Your task to perform on an android device: Go to display settings Image 0: 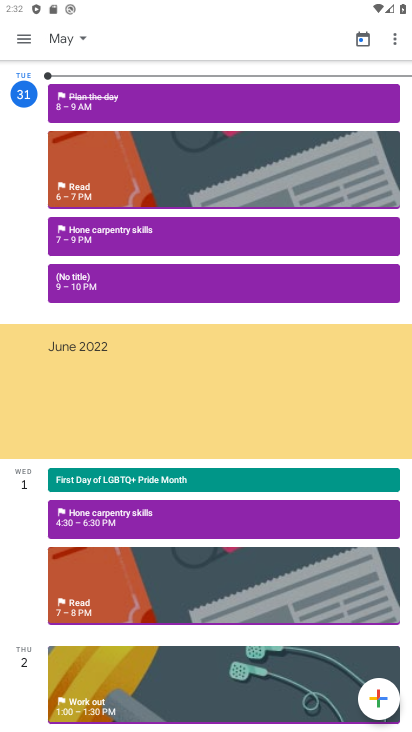
Step 0: press home button
Your task to perform on an android device: Go to display settings Image 1: 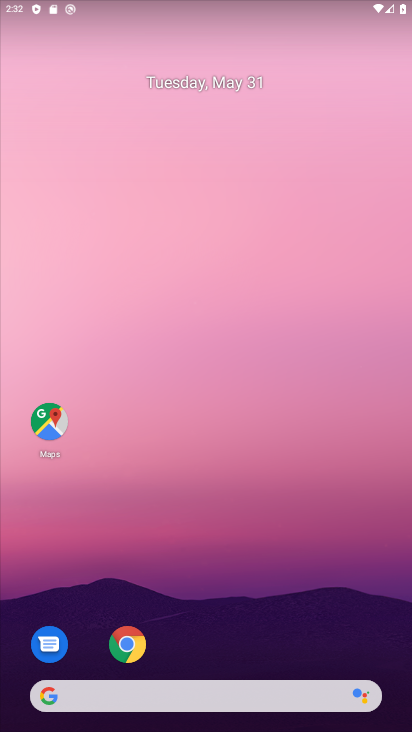
Step 1: drag from (293, 543) to (245, 106)
Your task to perform on an android device: Go to display settings Image 2: 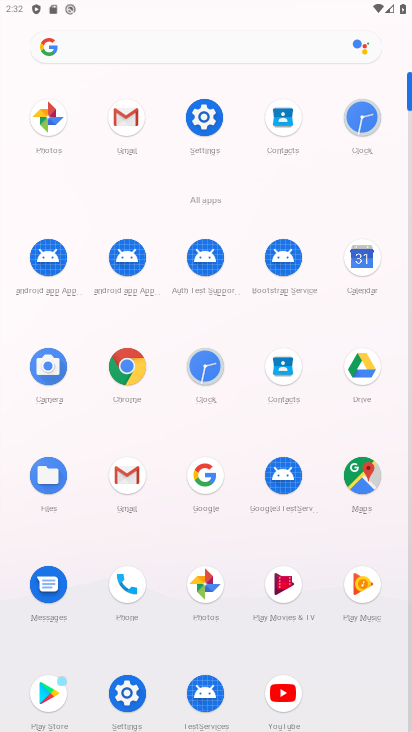
Step 2: click (211, 109)
Your task to perform on an android device: Go to display settings Image 3: 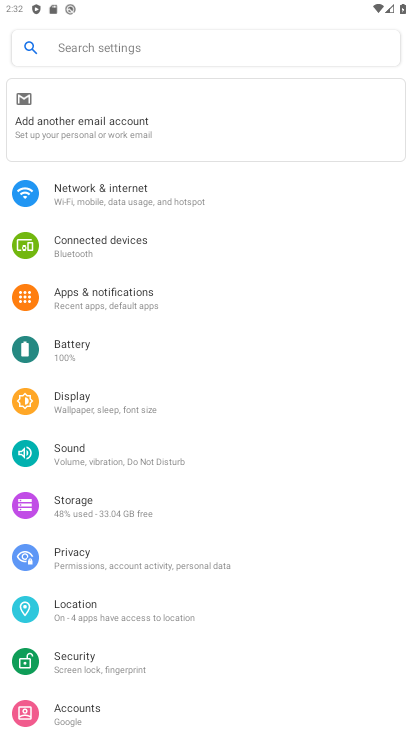
Step 3: click (164, 407)
Your task to perform on an android device: Go to display settings Image 4: 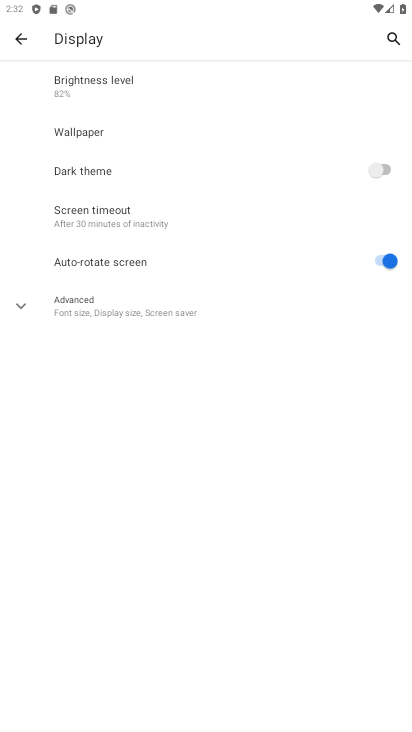
Step 4: task complete